Your task to perform on an android device: toggle wifi Image 0: 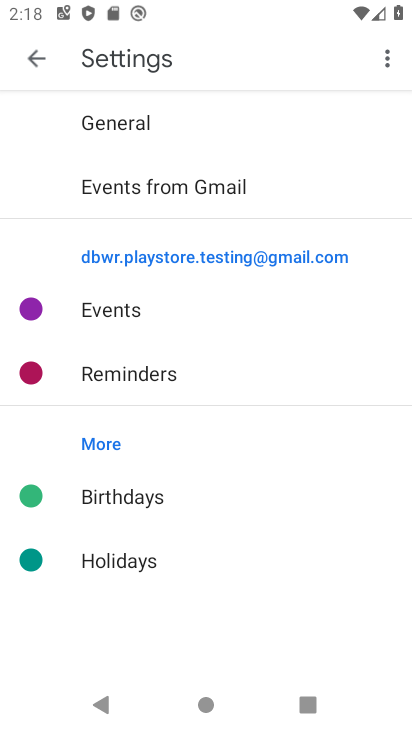
Step 0: press home button
Your task to perform on an android device: toggle wifi Image 1: 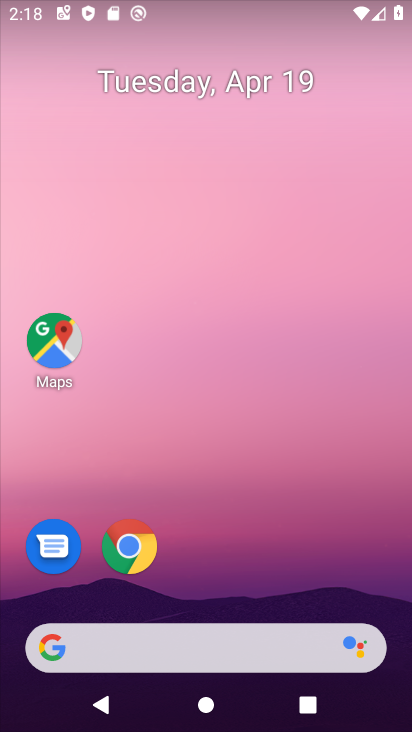
Step 1: drag from (147, 599) to (169, 105)
Your task to perform on an android device: toggle wifi Image 2: 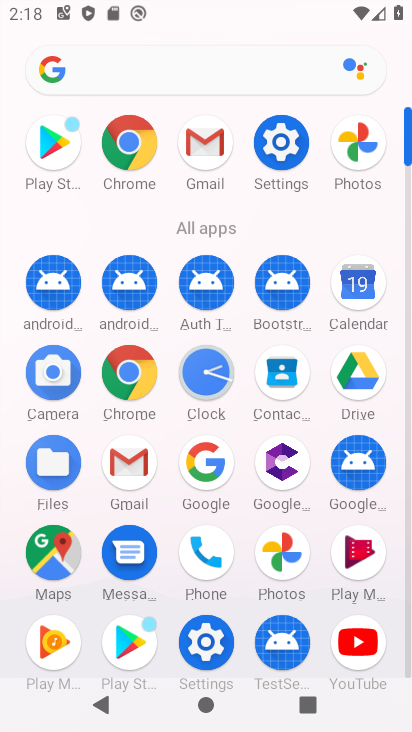
Step 2: click (293, 139)
Your task to perform on an android device: toggle wifi Image 3: 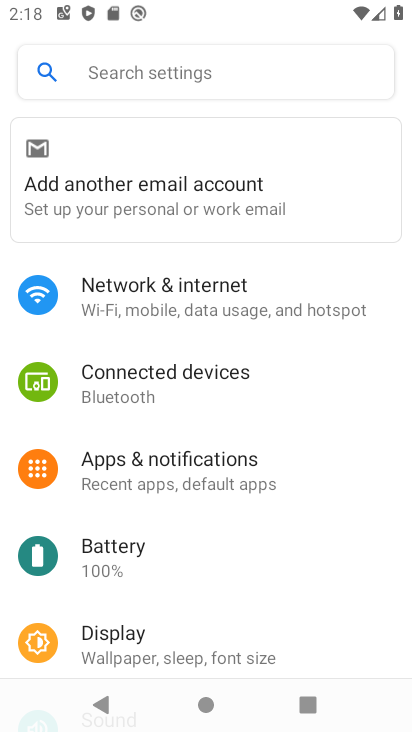
Step 3: click (166, 284)
Your task to perform on an android device: toggle wifi Image 4: 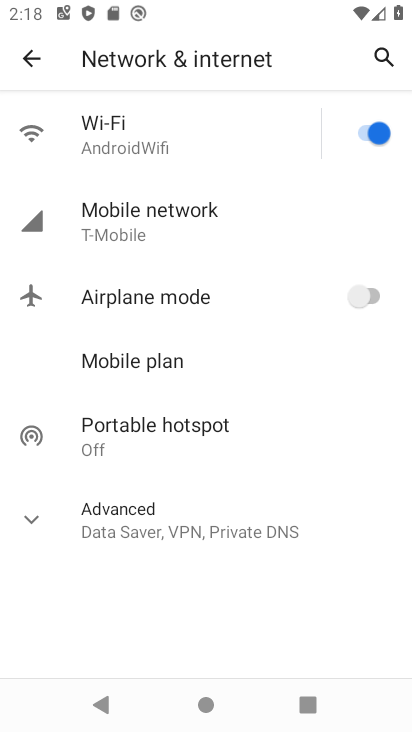
Step 4: click (370, 139)
Your task to perform on an android device: toggle wifi Image 5: 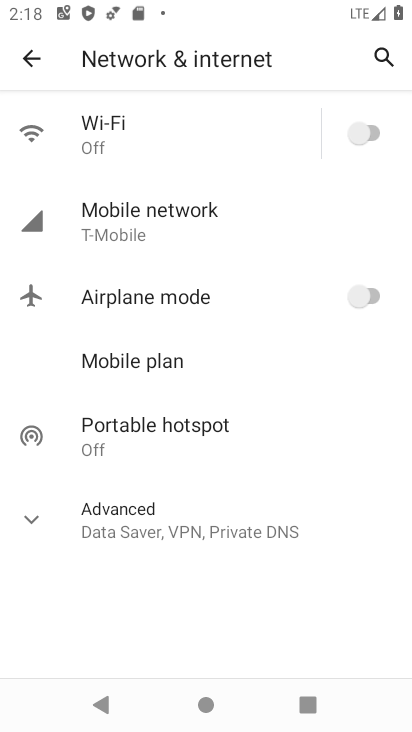
Step 5: task complete